Your task to perform on an android device: change the clock display to analog Image 0: 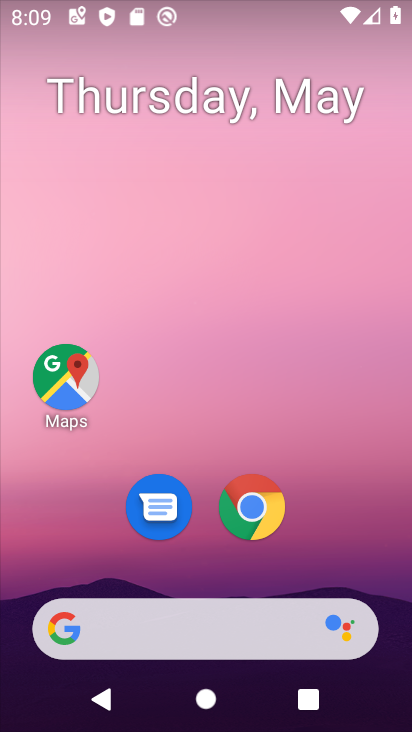
Step 0: drag from (273, 641) to (207, 174)
Your task to perform on an android device: change the clock display to analog Image 1: 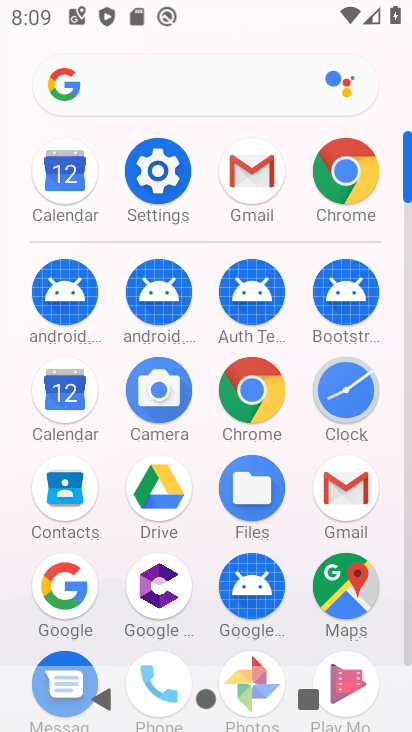
Step 1: click (340, 382)
Your task to perform on an android device: change the clock display to analog Image 2: 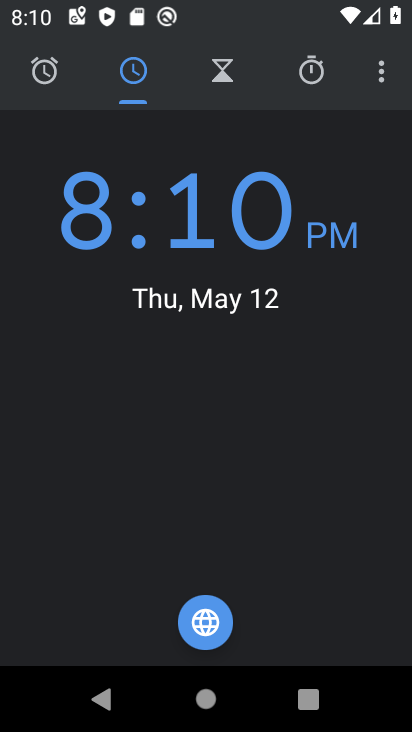
Step 2: click (369, 63)
Your task to perform on an android device: change the clock display to analog Image 3: 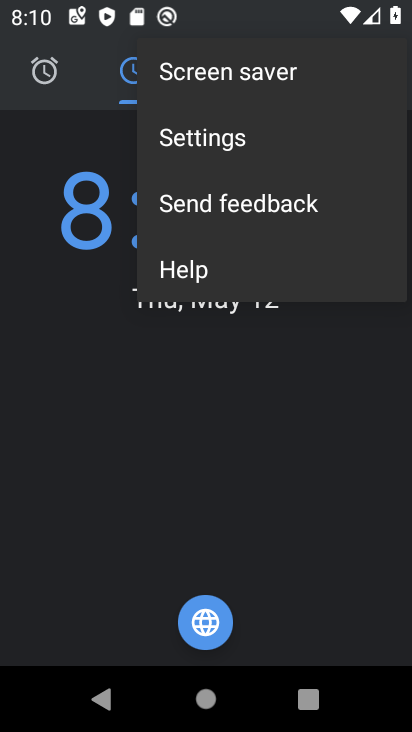
Step 3: click (264, 142)
Your task to perform on an android device: change the clock display to analog Image 4: 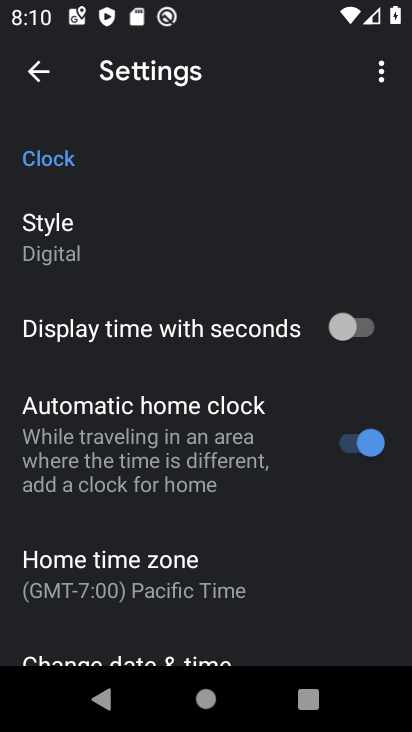
Step 4: click (112, 237)
Your task to perform on an android device: change the clock display to analog Image 5: 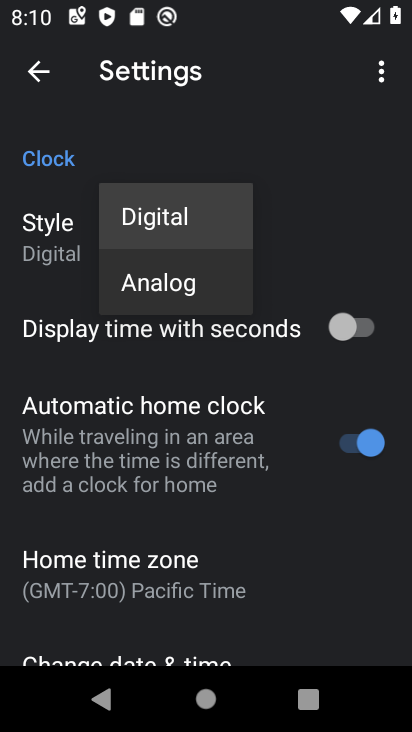
Step 5: click (165, 275)
Your task to perform on an android device: change the clock display to analog Image 6: 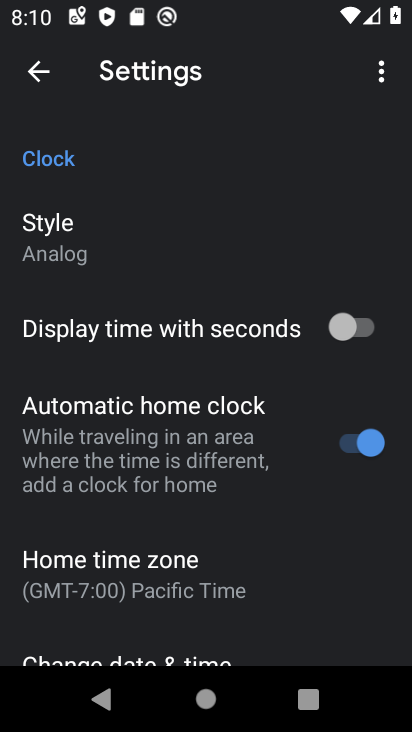
Step 6: task complete